Your task to perform on an android device: What's the weather going to be tomorrow? Image 0: 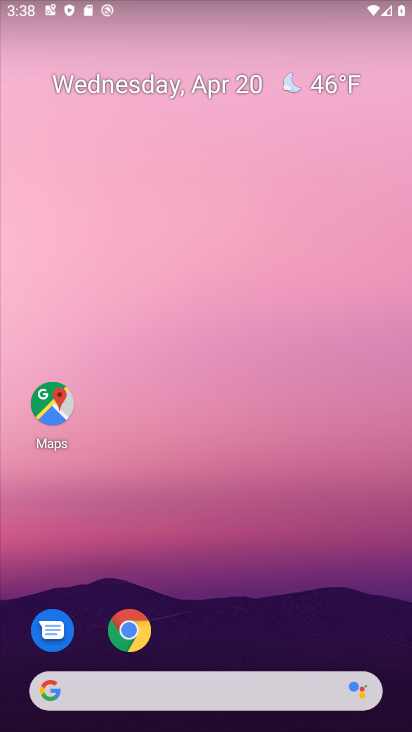
Step 0: drag from (223, 673) to (206, 295)
Your task to perform on an android device: What's the weather going to be tomorrow? Image 1: 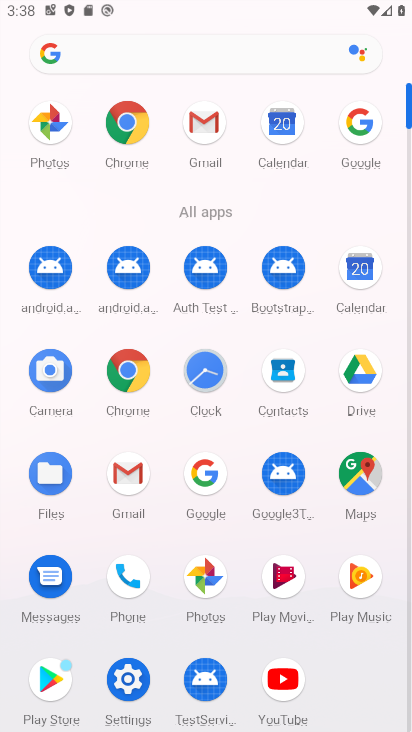
Step 1: click (204, 474)
Your task to perform on an android device: What's the weather going to be tomorrow? Image 2: 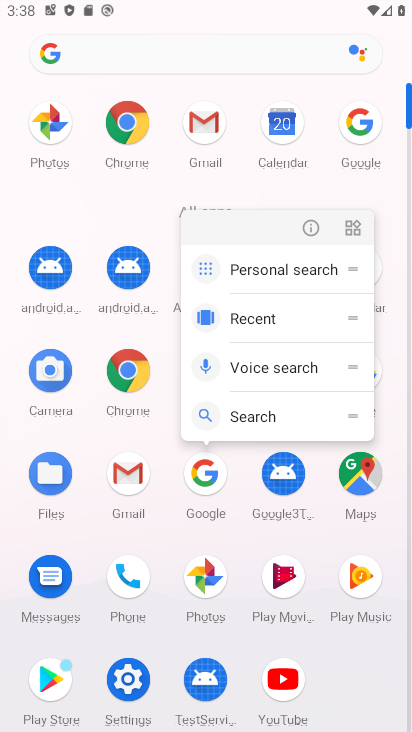
Step 2: click (204, 479)
Your task to perform on an android device: What's the weather going to be tomorrow? Image 3: 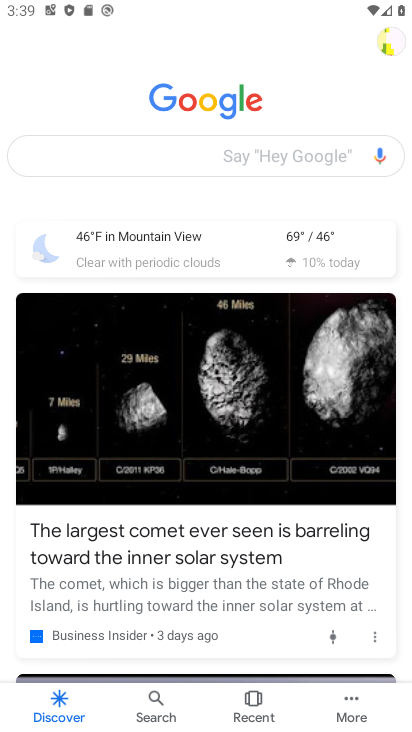
Step 3: click (218, 243)
Your task to perform on an android device: What's the weather going to be tomorrow? Image 4: 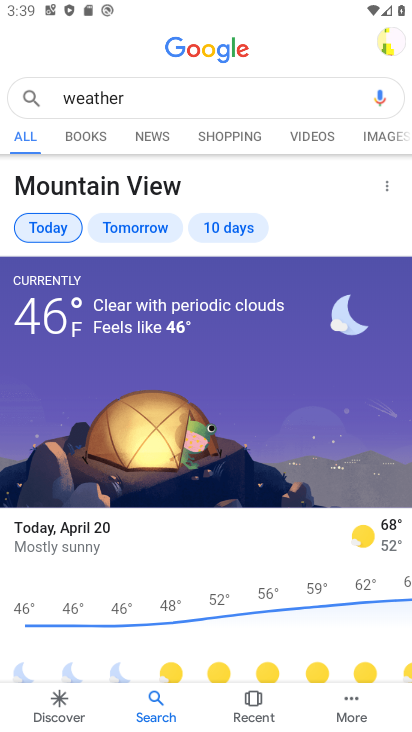
Step 4: click (120, 229)
Your task to perform on an android device: What's the weather going to be tomorrow? Image 5: 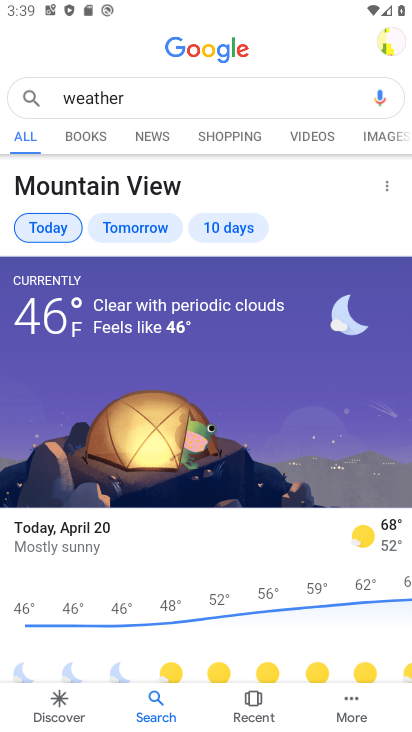
Step 5: click (130, 227)
Your task to perform on an android device: What's the weather going to be tomorrow? Image 6: 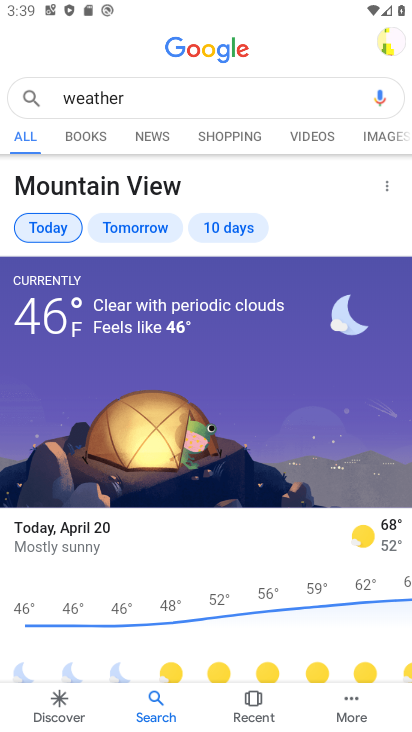
Step 6: click (132, 224)
Your task to perform on an android device: What's the weather going to be tomorrow? Image 7: 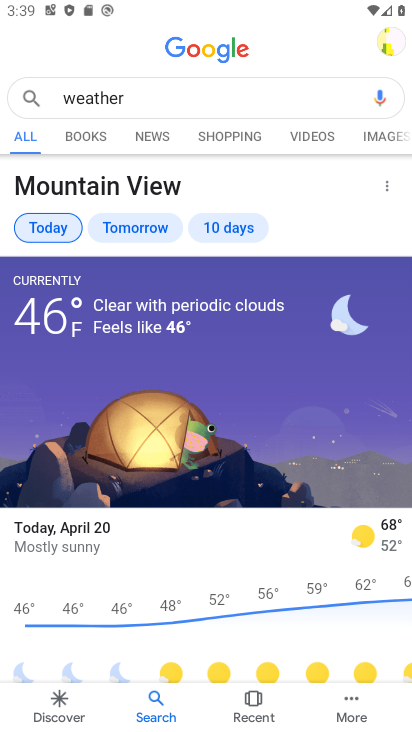
Step 7: click (129, 226)
Your task to perform on an android device: What's the weather going to be tomorrow? Image 8: 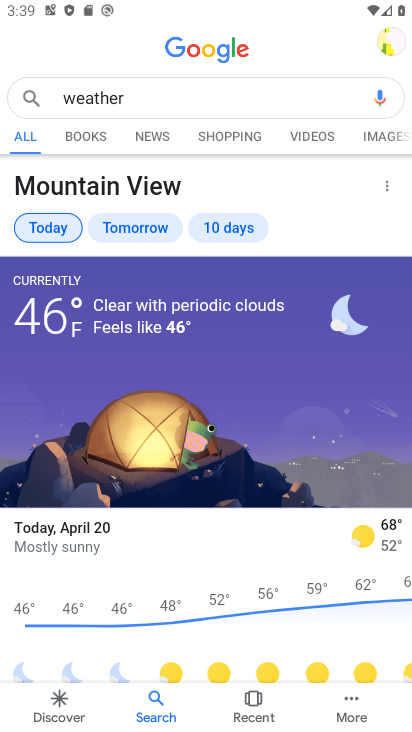
Step 8: click (174, 221)
Your task to perform on an android device: What's the weather going to be tomorrow? Image 9: 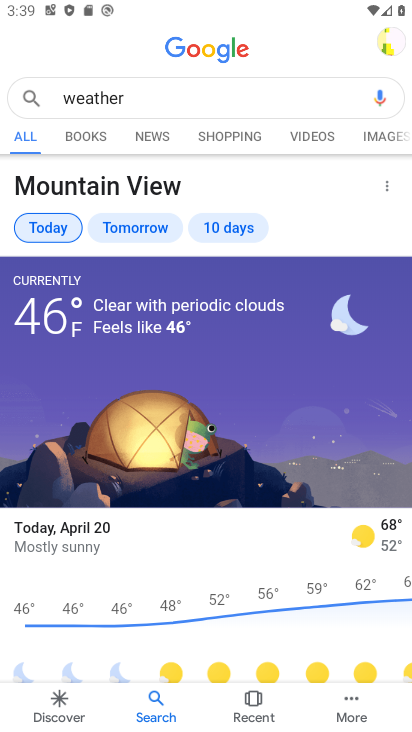
Step 9: click (164, 220)
Your task to perform on an android device: What's the weather going to be tomorrow? Image 10: 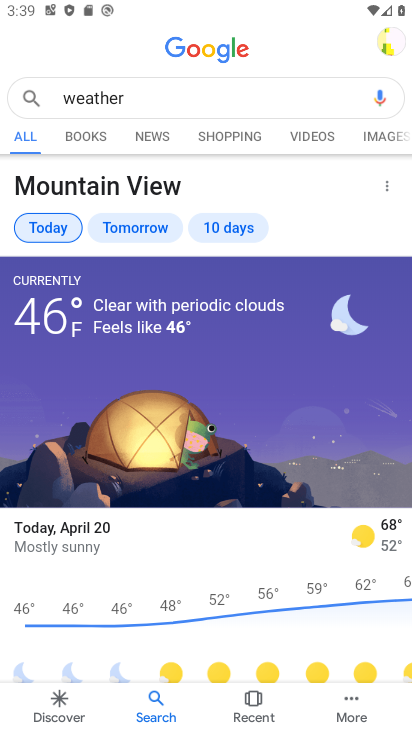
Step 10: click (132, 228)
Your task to perform on an android device: What's the weather going to be tomorrow? Image 11: 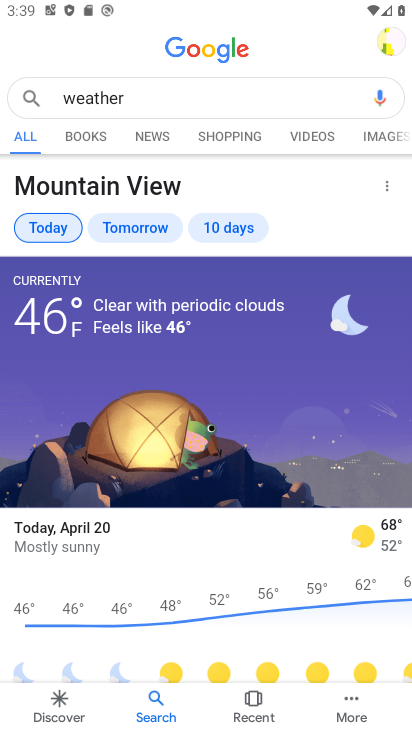
Step 11: click (154, 229)
Your task to perform on an android device: What's the weather going to be tomorrow? Image 12: 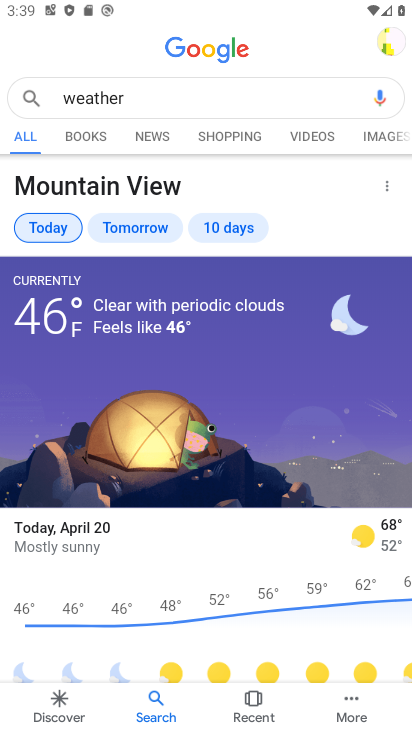
Step 12: task complete